Your task to perform on an android device: toggle wifi Image 0: 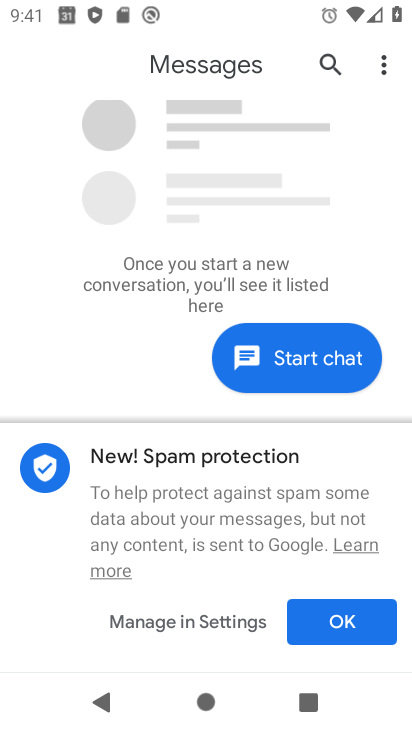
Step 0: press home button
Your task to perform on an android device: toggle wifi Image 1: 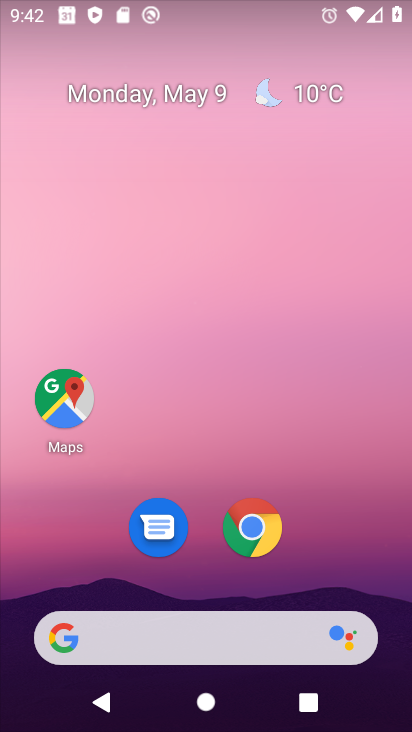
Step 1: drag from (388, 599) to (305, 63)
Your task to perform on an android device: toggle wifi Image 2: 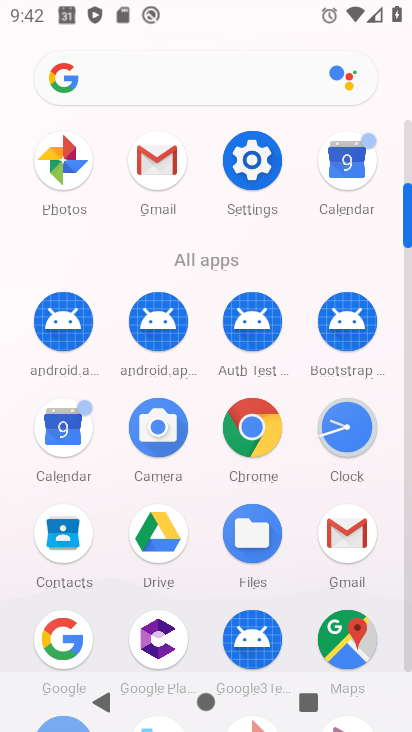
Step 2: click (402, 646)
Your task to perform on an android device: toggle wifi Image 3: 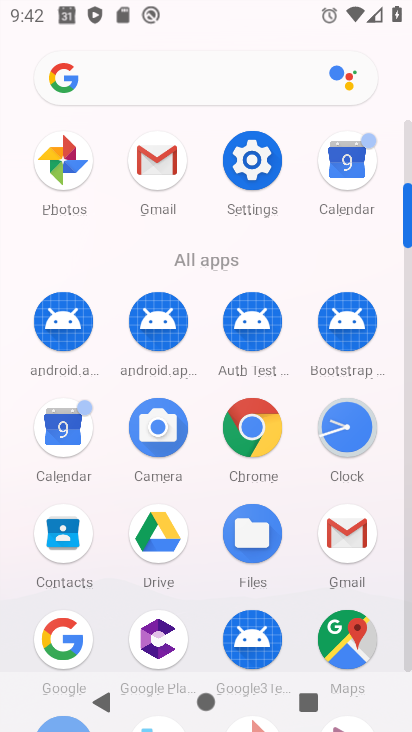
Step 3: click (407, 648)
Your task to perform on an android device: toggle wifi Image 4: 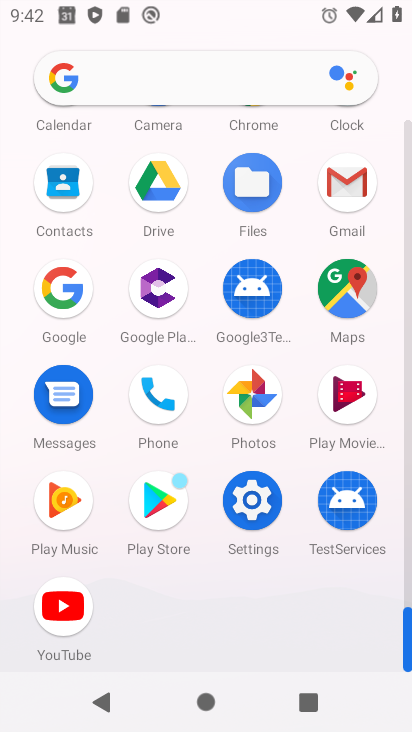
Step 4: click (252, 499)
Your task to perform on an android device: toggle wifi Image 5: 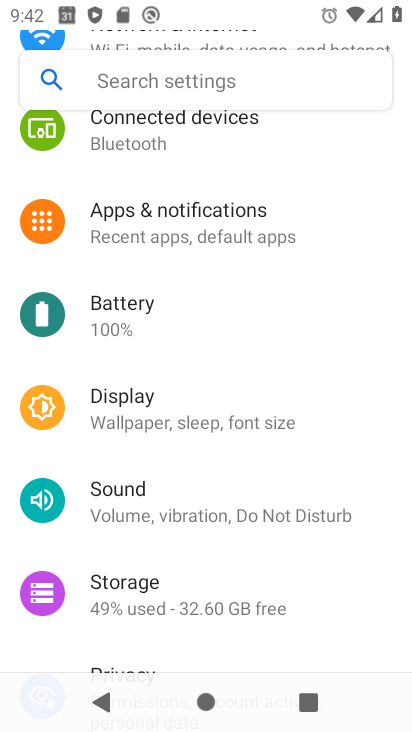
Step 5: drag from (352, 139) to (316, 577)
Your task to perform on an android device: toggle wifi Image 6: 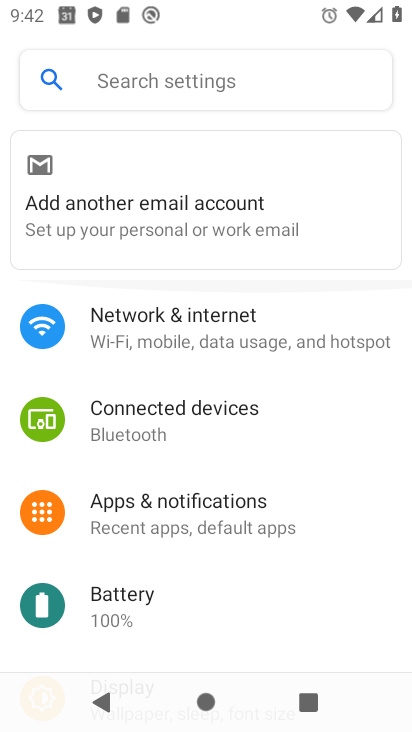
Step 6: click (316, 577)
Your task to perform on an android device: toggle wifi Image 7: 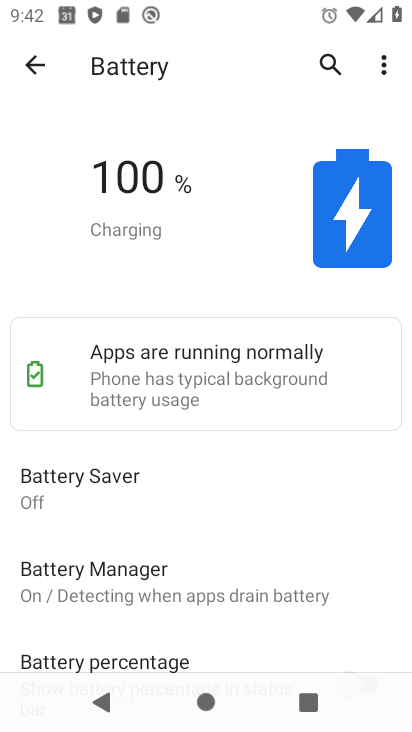
Step 7: press back button
Your task to perform on an android device: toggle wifi Image 8: 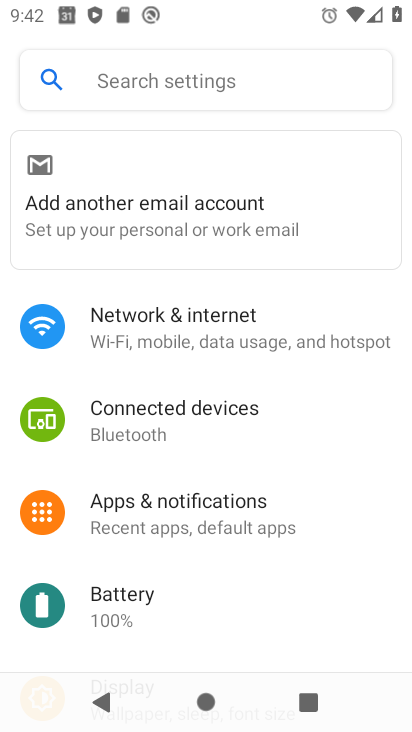
Step 8: click (167, 319)
Your task to perform on an android device: toggle wifi Image 9: 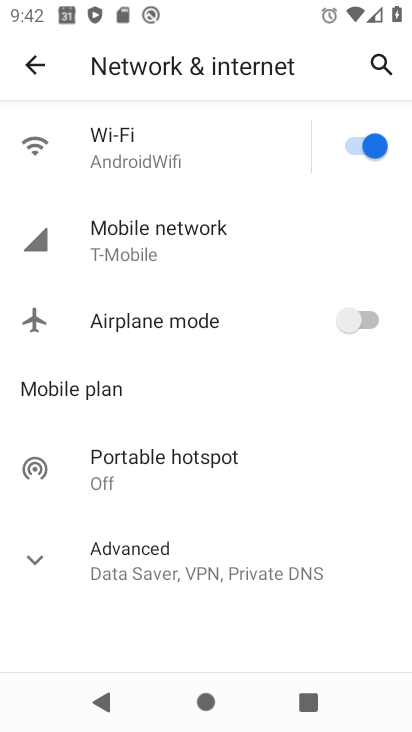
Step 9: click (361, 142)
Your task to perform on an android device: toggle wifi Image 10: 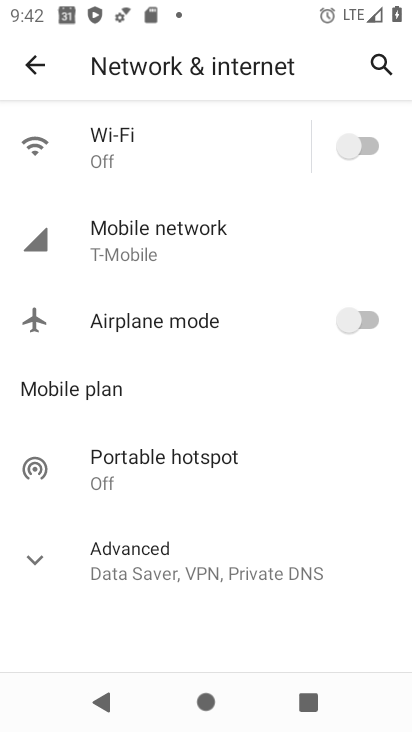
Step 10: task complete